Your task to perform on an android device: toggle notifications settings in the gmail app Image 0: 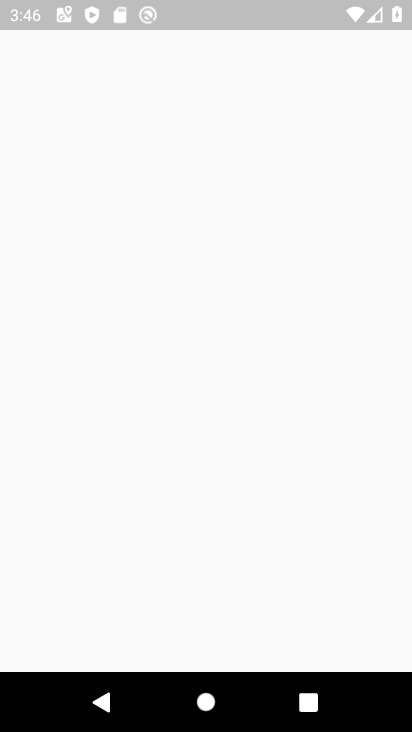
Step 0: press home button
Your task to perform on an android device: toggle notifications settings in the gmail app Image 1: 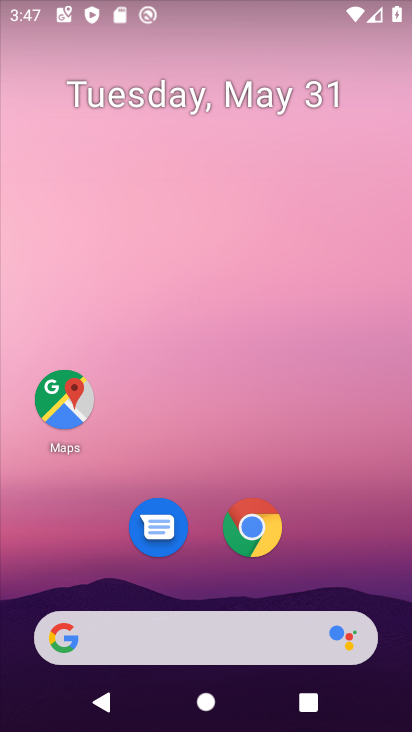
Step 1: drag from (203, 589) to (163, 46)
Your task to perform on an android device: toggle notifications settings in the gmail app Image 2: 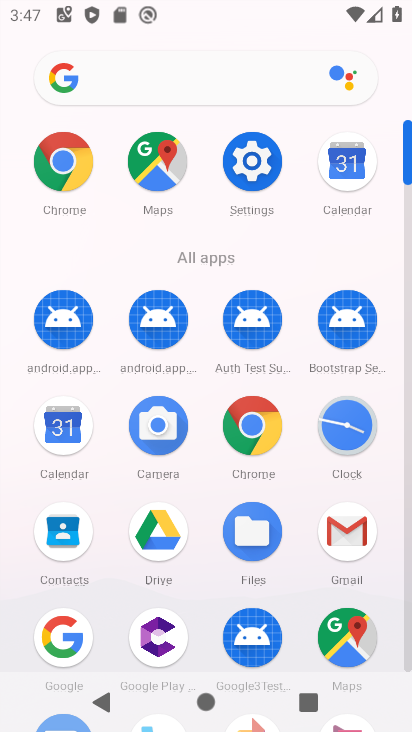
Step 2: click (351, 516)
Your task to perform on an android device: toggle notifications settings in the gmail app Image 3: 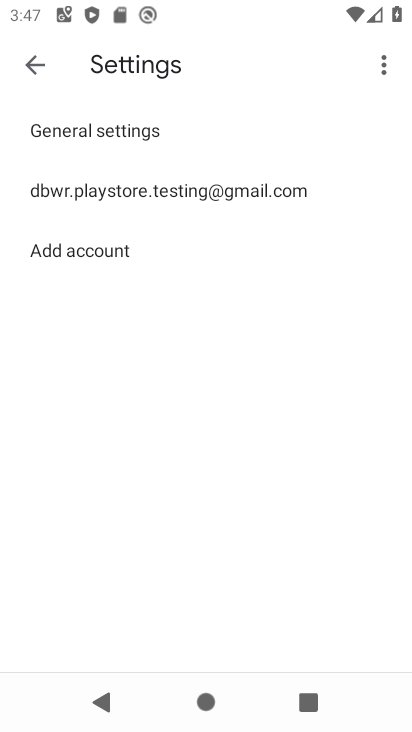
Step 3: click (90, 135)
Your task to perform on an android device: toggle notifications settings in the gmail app Image 4: 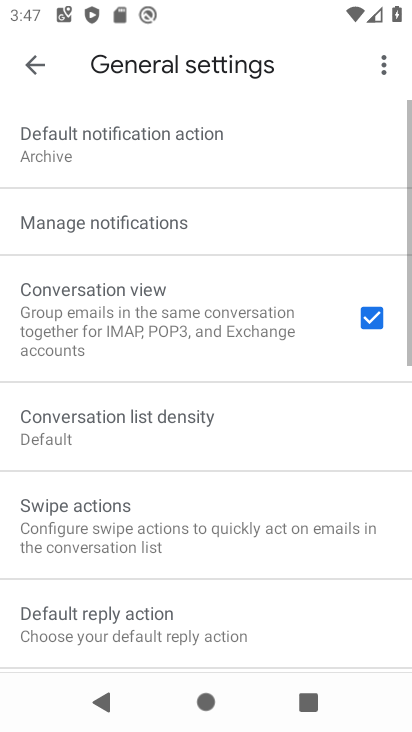
Step 4: click (119, 232)
Your task to perform on an android device: toggle notifications settings in the gmail app Image 5: 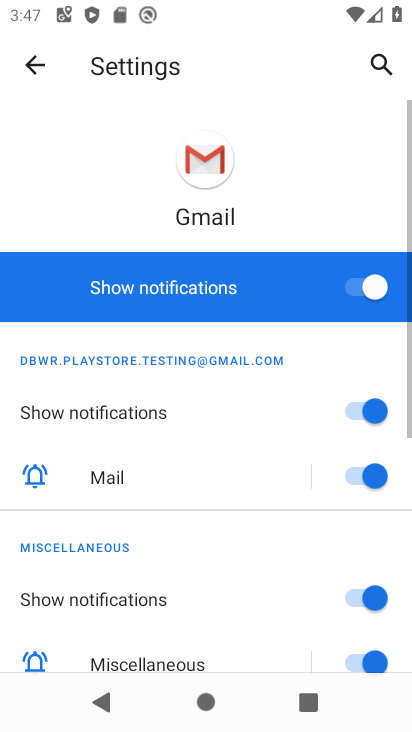
Step 5: click (365, 287)
Your task to perform on an android device: toggle notifications settings in the gmail app Image 6: 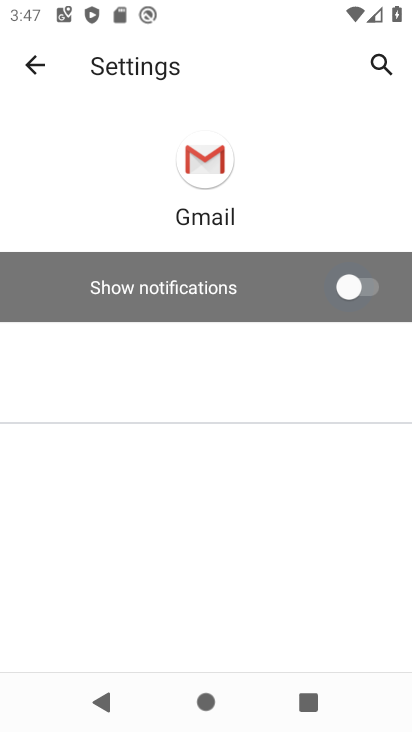
Step 6: task complete